Your task to perform on an android device: Check the settings for the Pandora app Image 0: 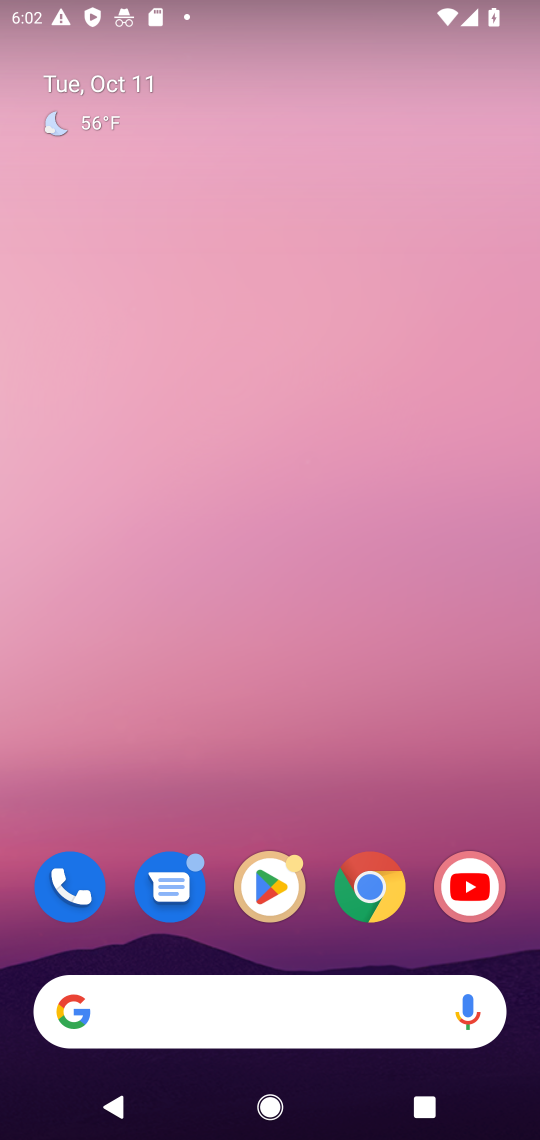
Step 0: click (286, 1002)
Your task to perform on an android device: Check the settings for the Pandora app Image 1: 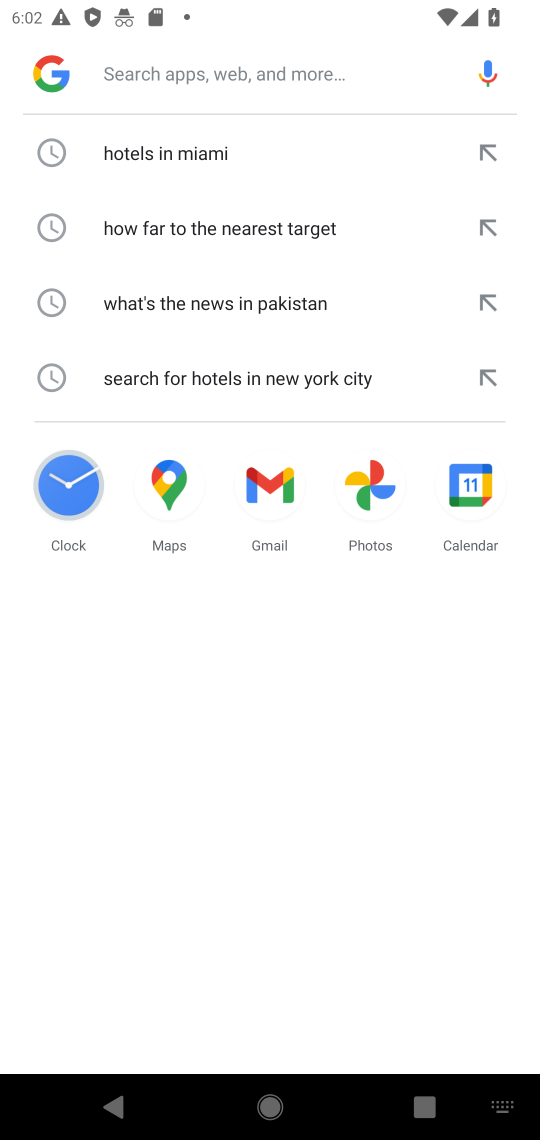
Step 1: press home button
Your task to perform on an android device: Check the settings for the Pandora app Image 2: 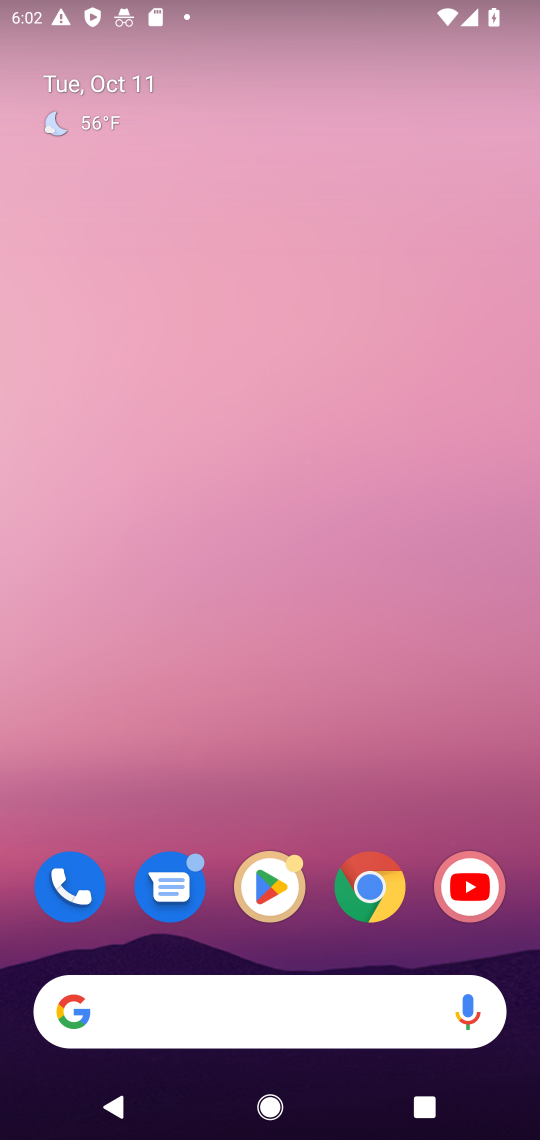
Step 2: click (266, 1012)
Your task to perform on an android device: Check the settings for the Pandora app Image 3: 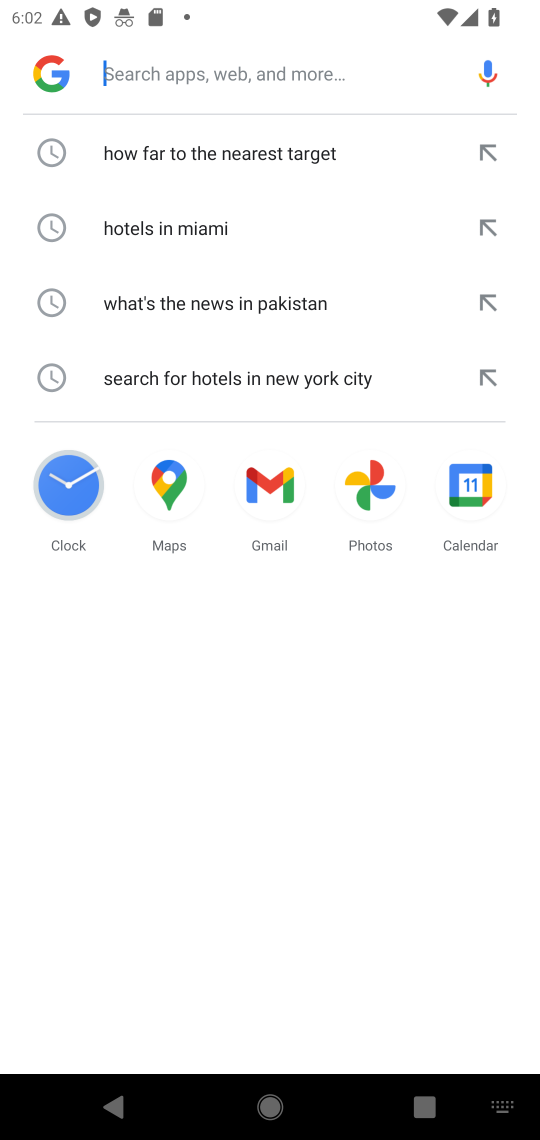
Step 3: press home button
Your task to perform on an android device: Check the settings for the Pandora app Image 4: 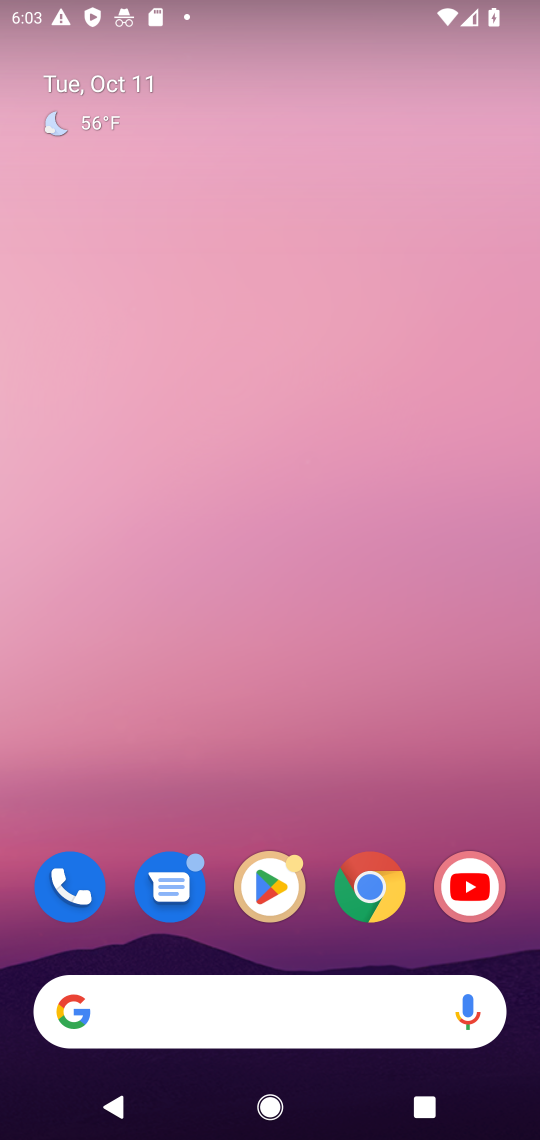
Step 4: click (258, 894)
Your task to perform on an android device: Check the settings for the Pandora app Image 5: 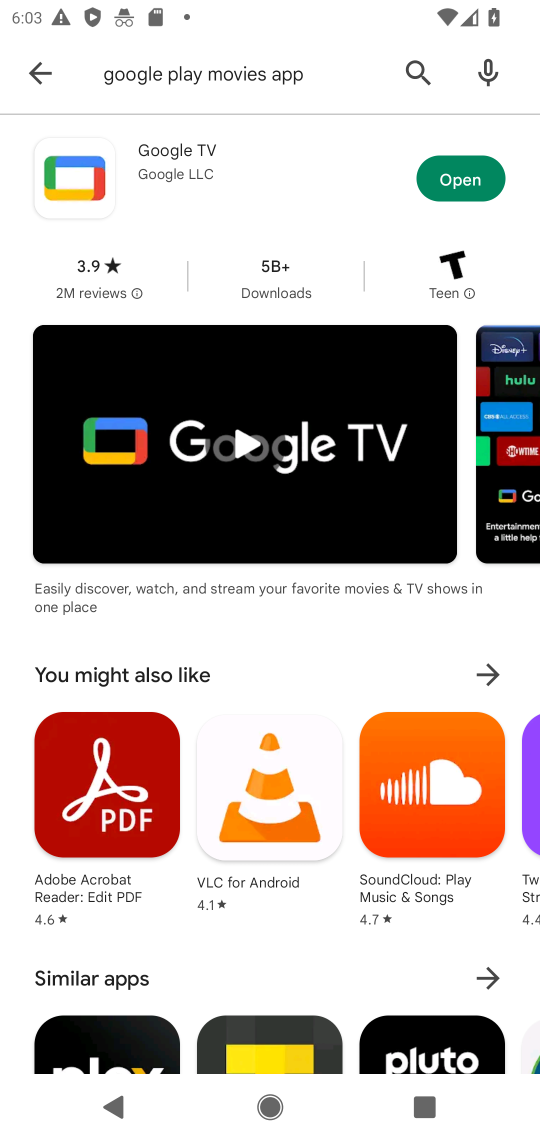
Step 5: click (45, 77)
Your task to perform on an android device: Check the settings for the Pandora app Image 6: 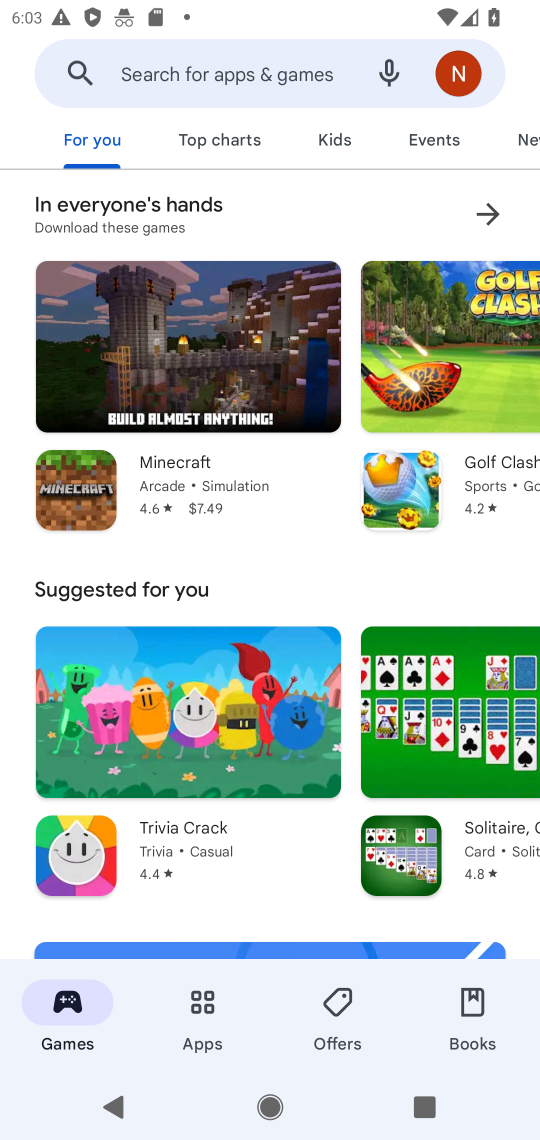
Step 6: click (187, 77)
Your task to perform on an android device: Check the settings for the Pandora app Image 7: 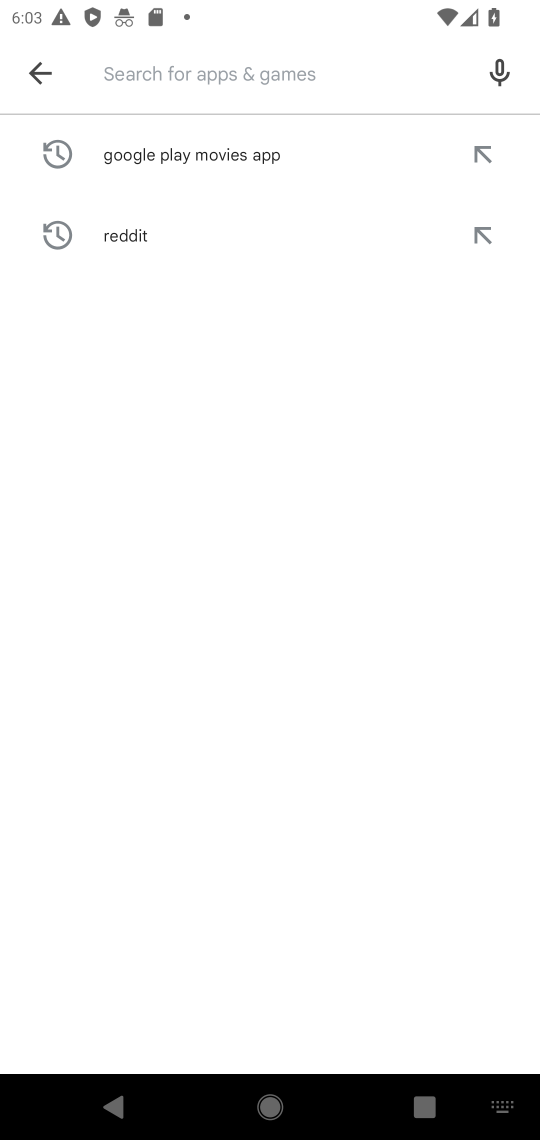
Step 7: type " Pandora app"
Your task to perform on an android device: Check the settings for the Pandora app Image 8: 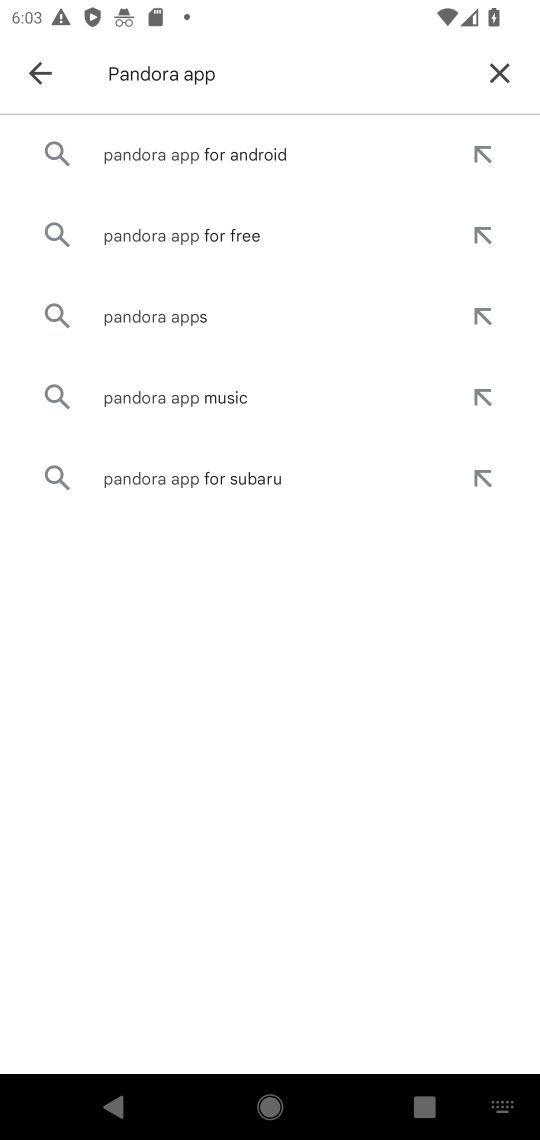
Step 8: click (165, 324)
Your task to perform on an android device: Check the settings for the Pandora app Image 9: 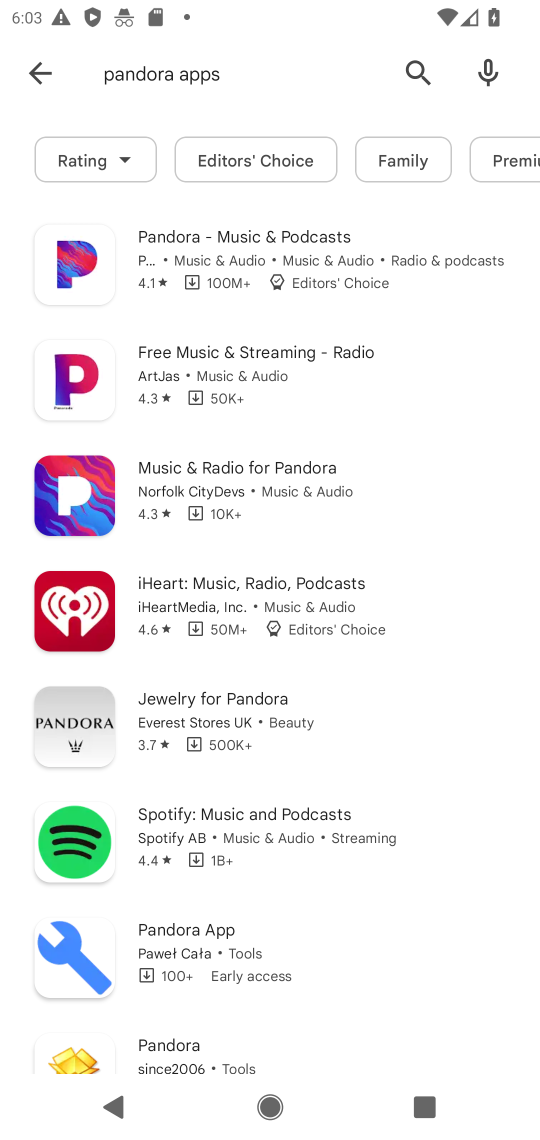
Step 9: click (165, 273)
Your task to perform on an android device: Check the settings for the Pandora app Image 10: 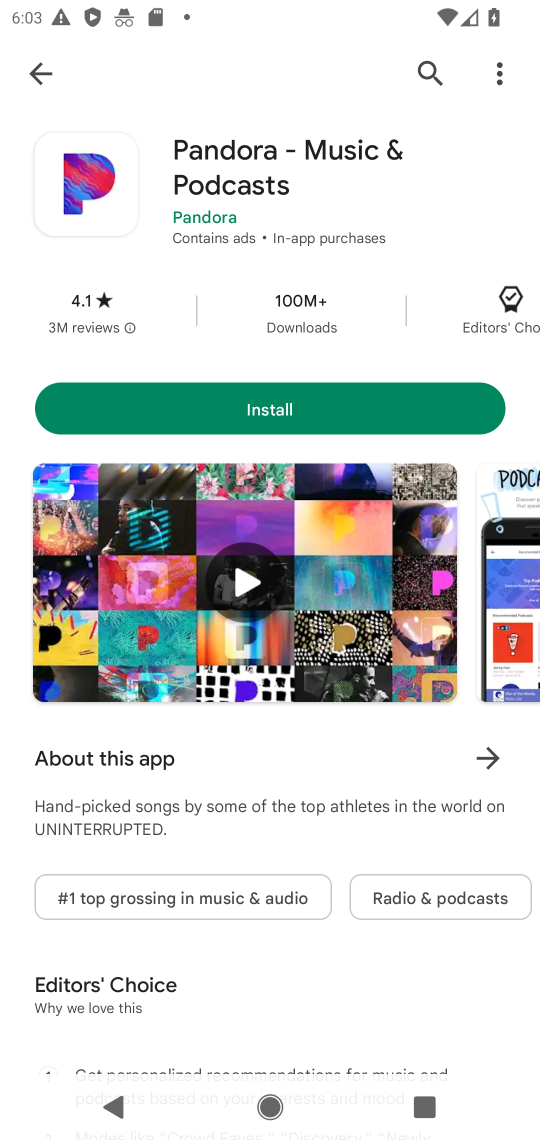
Step 10: click (294, 399)
Your task to perform on an android device: Check the settings for the Pandora app Image 11: 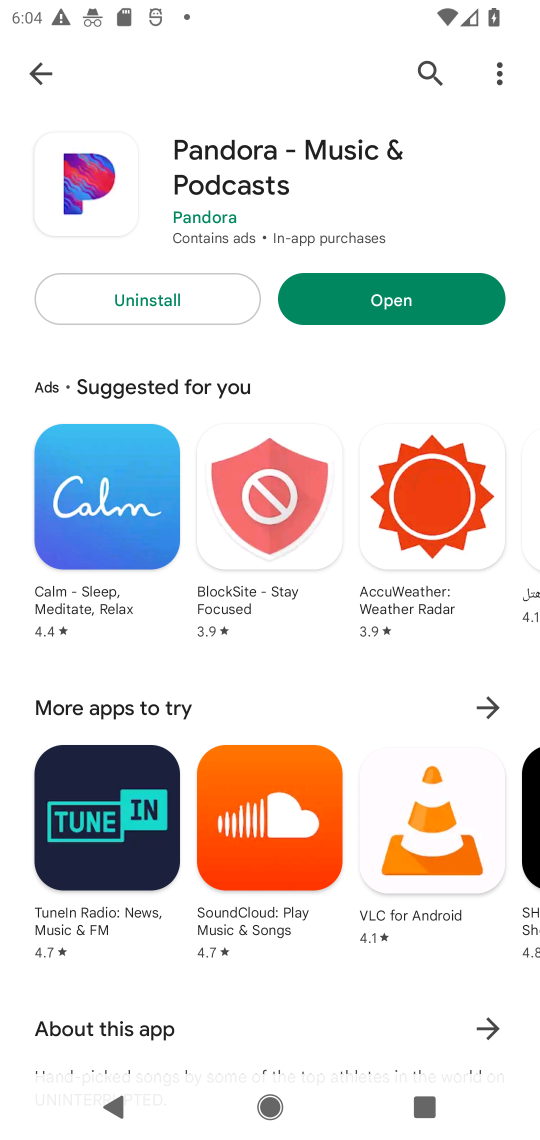
Step 11: click (365, 308)
Your task to perform on an android device: Check the settings for the Pandora app Image 12: 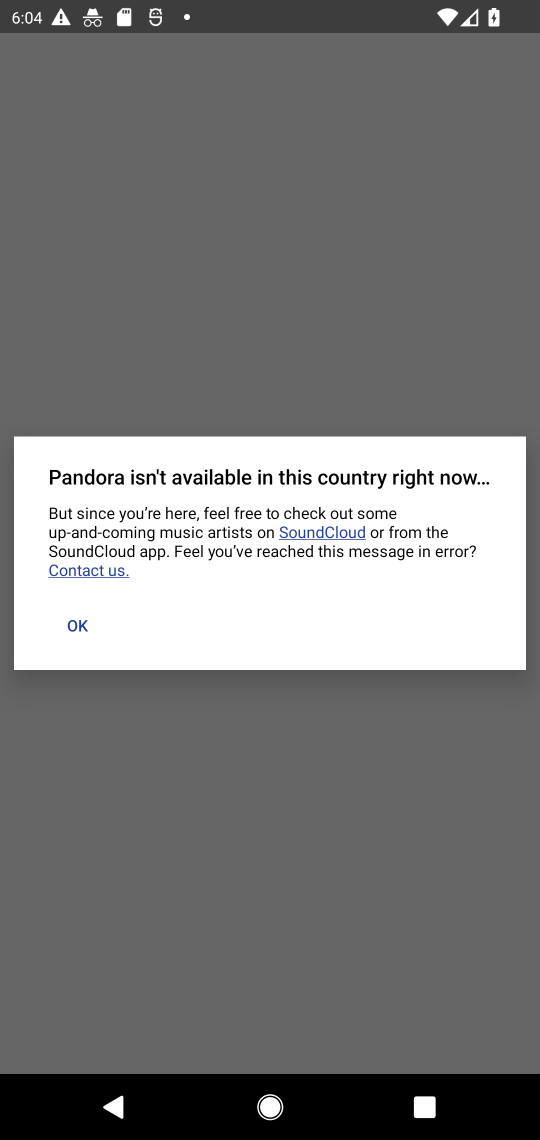
Step 12: click (81, 625)
Your task to perform on an android device: Check the settings for the Pandora app Image 13: 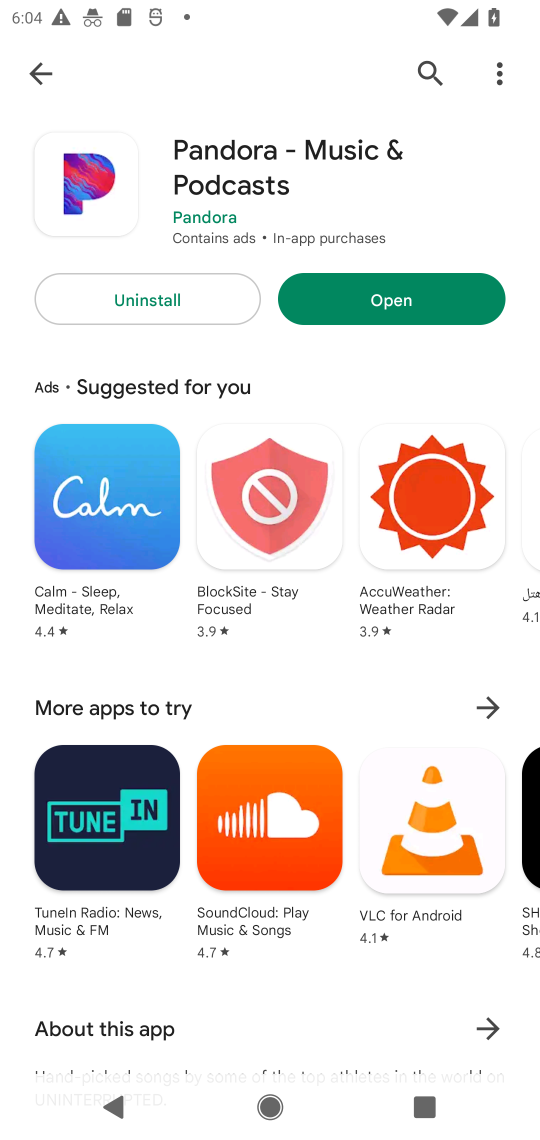
Step 13: click (374, 314)
Your task to perform on an android device: Check the settings for the Pandora app Image 14: 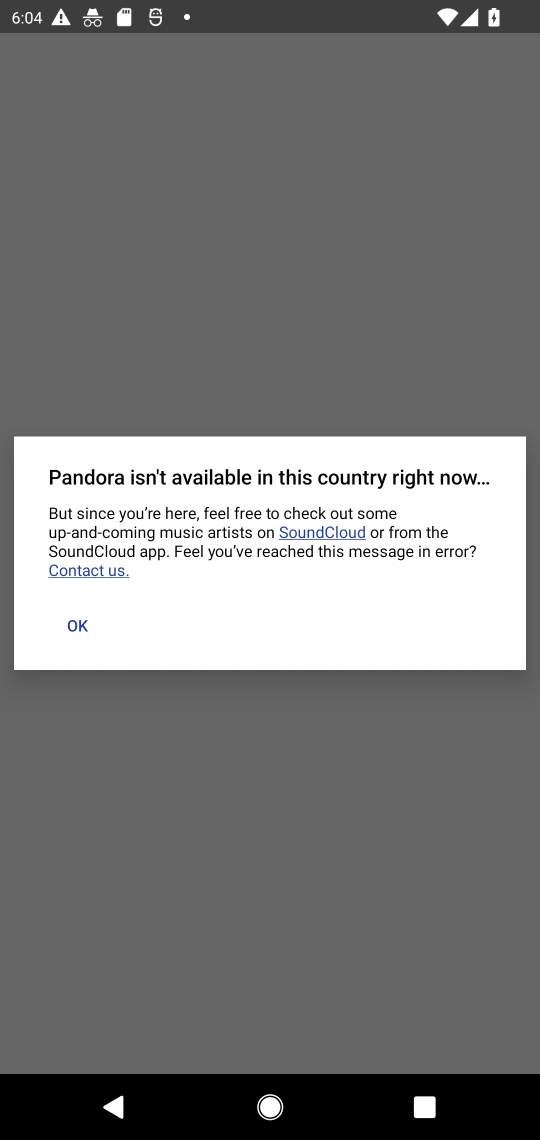
Step 14: click (78, 621)
Your task to perform on an android device: Check the settings for the Pandora app Image 15: 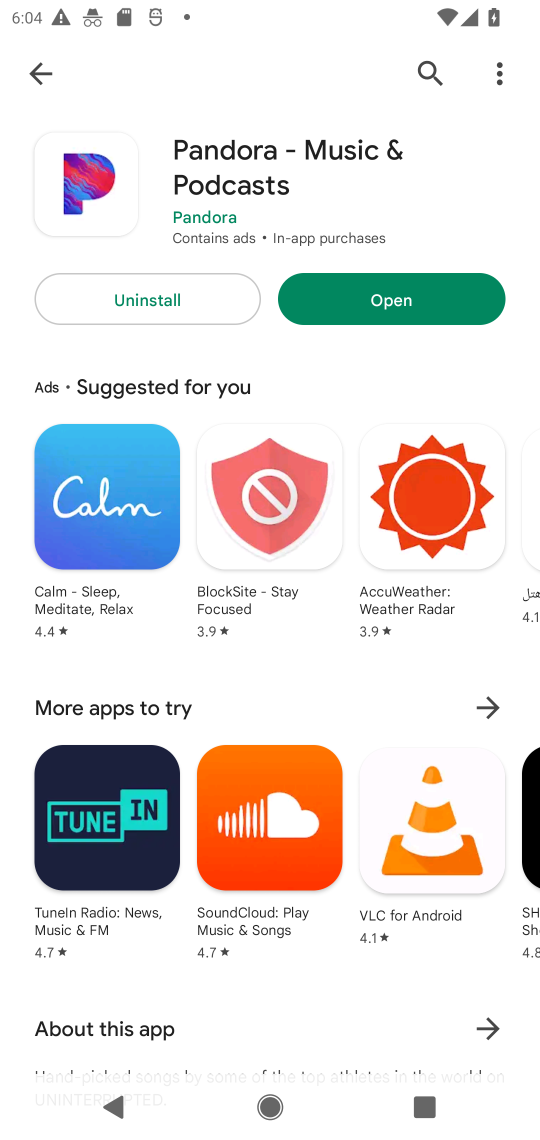
Step 15: task complete